Your task to perform on an android device: turn off sleep mode Image 0: 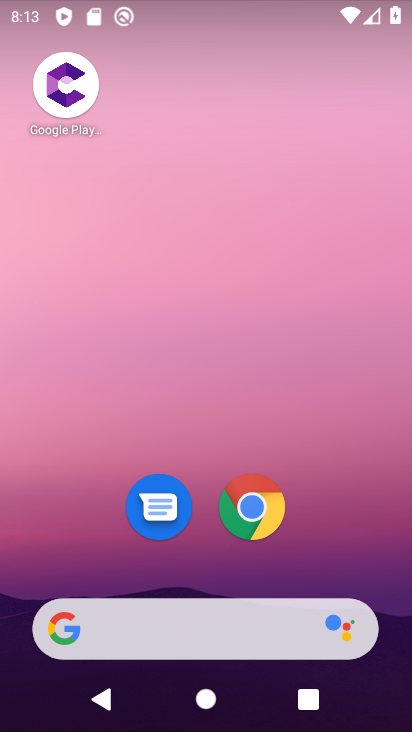
Step 0: drag from (237, 728) to (231, 187)
Your task to perform on an android device: turn off sleep mode Image 1: 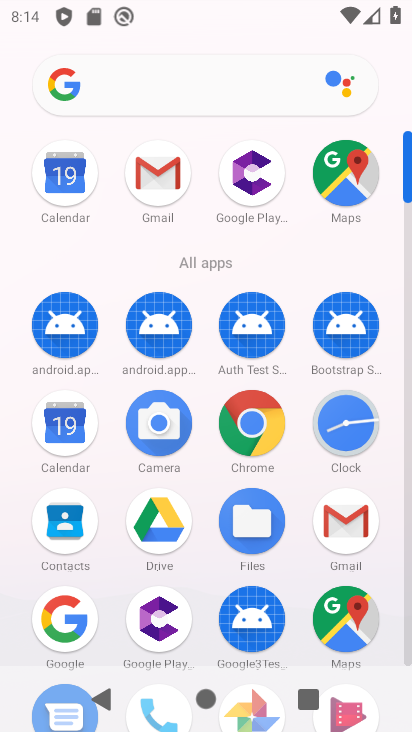
Step 1: drag from (98, 596) to (94, 292)
Your task to perform on an android device: turn off sleep mode Image 2: 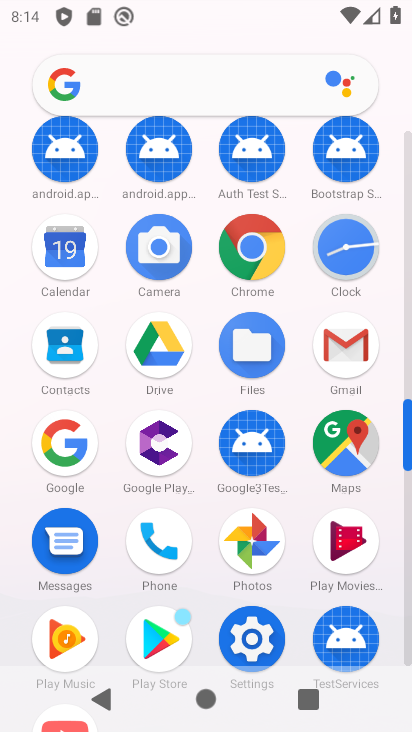
Step 2: click (250, 644)
Your task to perform on an android device: turn off sleep mode Image 3: 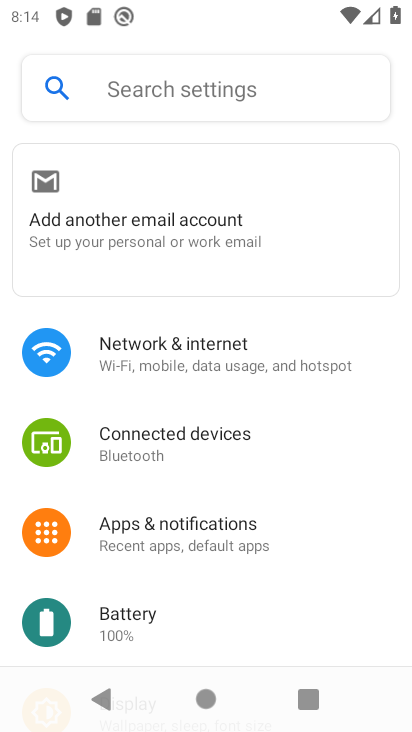
Step 3: task complete